Your task to perform on an android device: turn on bluetooth scan Image 0: 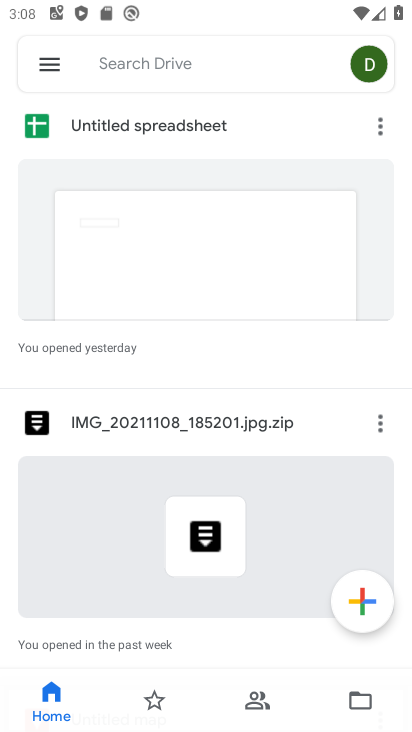
Step 0: press home button
Your task to perform on an android device: turn on bluetooth scan Image 1: 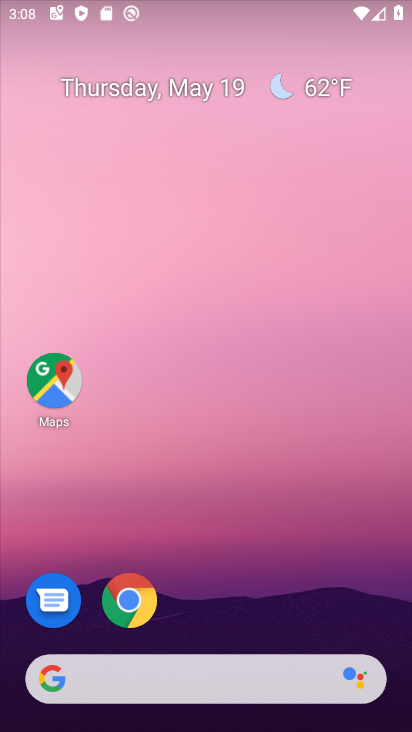
Step 1: drag from (78, 379) to (195, 132)
Your task to perform on an android device: turn on bluetooth scan Image 2: 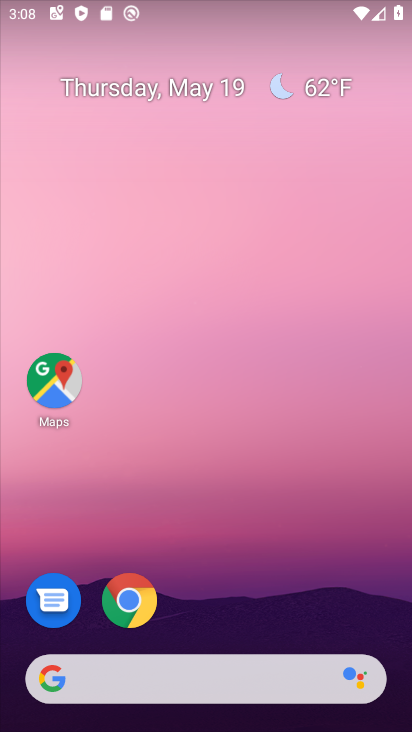
Step 2: drag from (53, 444) to (203, 86)
Your task to perform on an android device: turn on bluetooth scan Image 3: 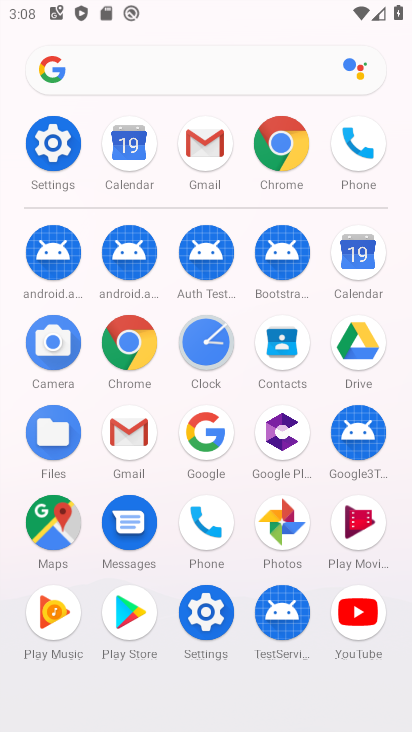
Step 3: click (53, 153)
Your task to perform on an android device: turn on bluetooth scan Image 4: 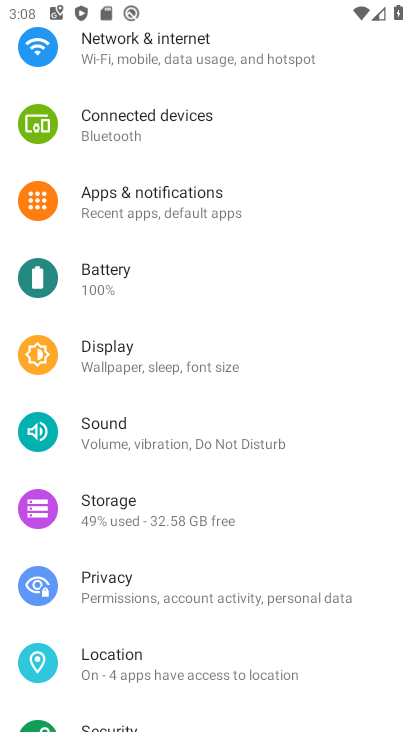
Step 4: click (90, 651)
Your task to perform on an android device: turn on bluetooth scan Image 5: 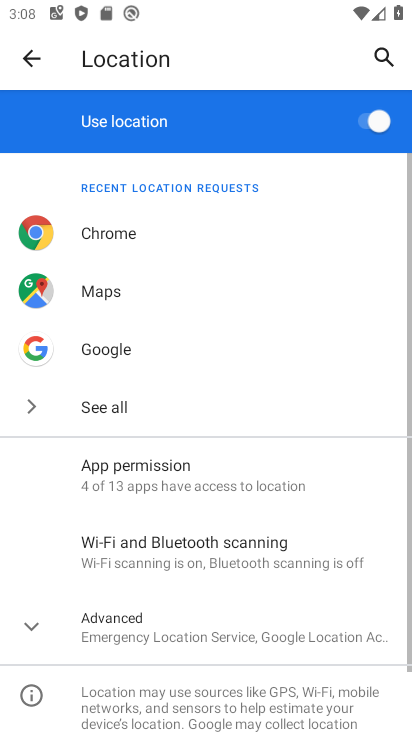
Step 5: click (155, 553)
Your task to perform on an android device: turn on bluetooth scan Image 6: 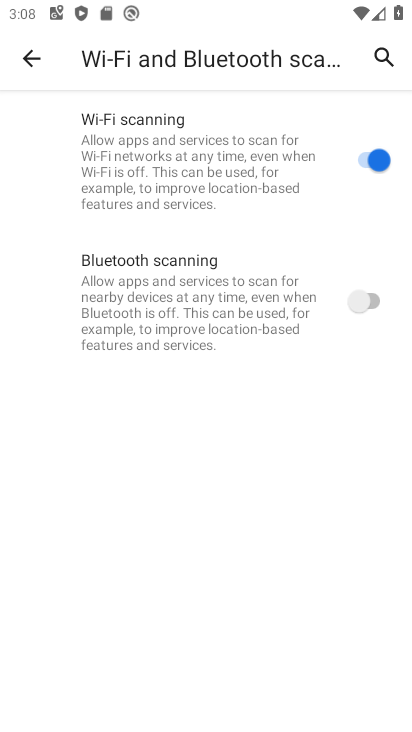
Step 6: click (356, 303)
Your task to perform on an android device: turn on bluetooth scan Image 7: 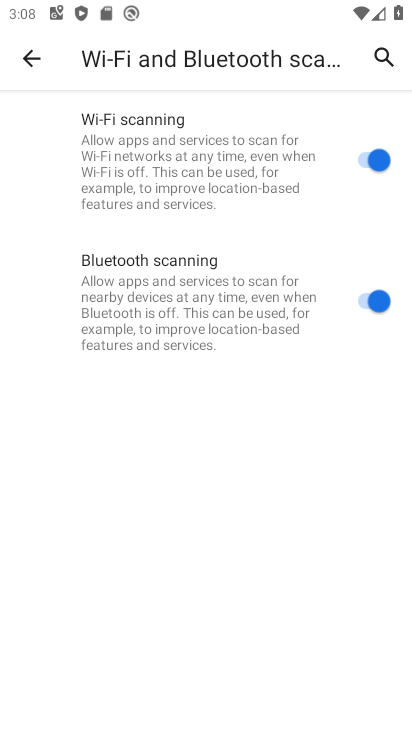
Step 7: task complete